Your task to perform on an android device: manage bookmarks in the chrome app Image 0: 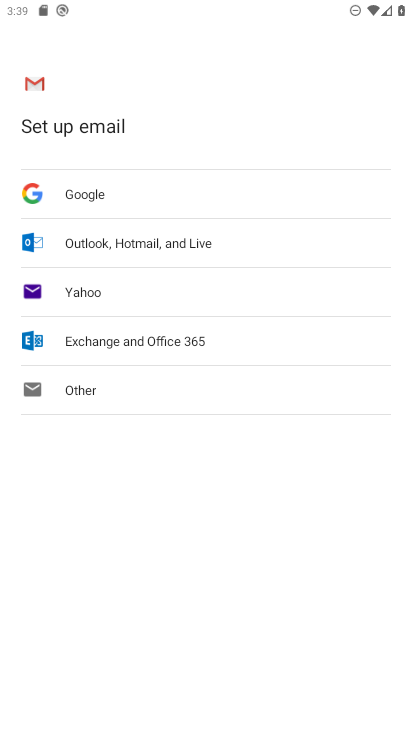
Step 0: press home button
Your task to perform on an android device: manage bookmarks in the chrome app Image 1: 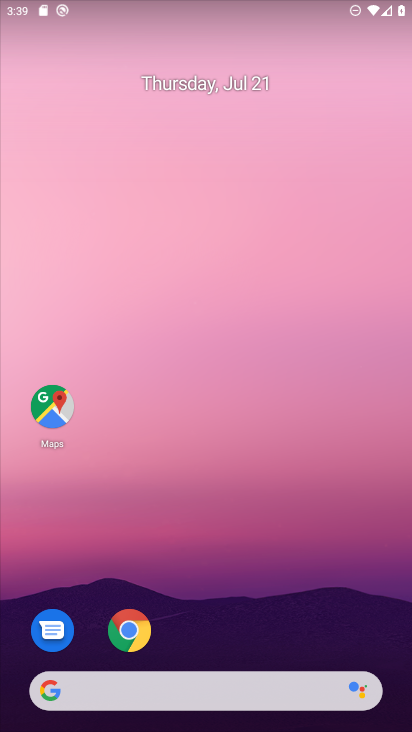
Step 1: drag from (241, 651) to (256, 47)
Your task to perform on an android device: manage bookmarks in the chrome app Image 2: 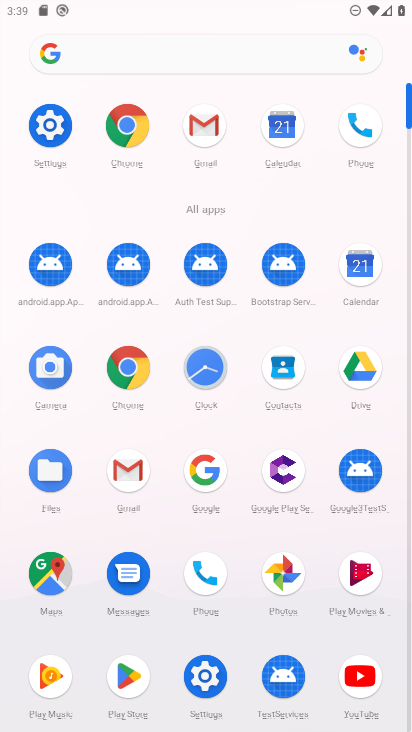
Step 2: click (136, 384)
Your task to perform on an android device: manage bookmarks in the chrome app Image 3: 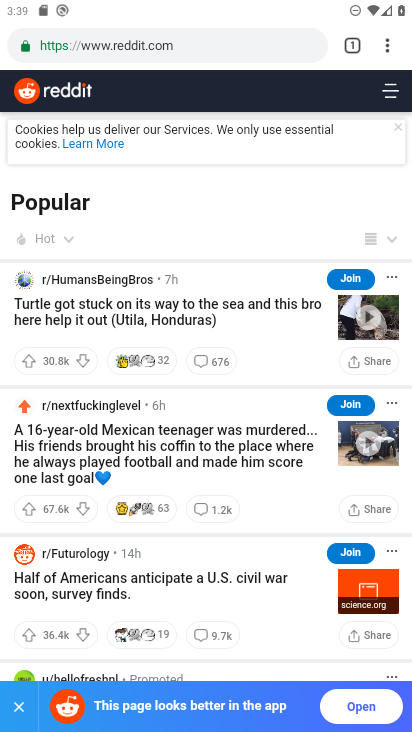
Step 3: click (388, 44)
Your task to perform on an android device: manage bookmarks in the chrome app Image 4: 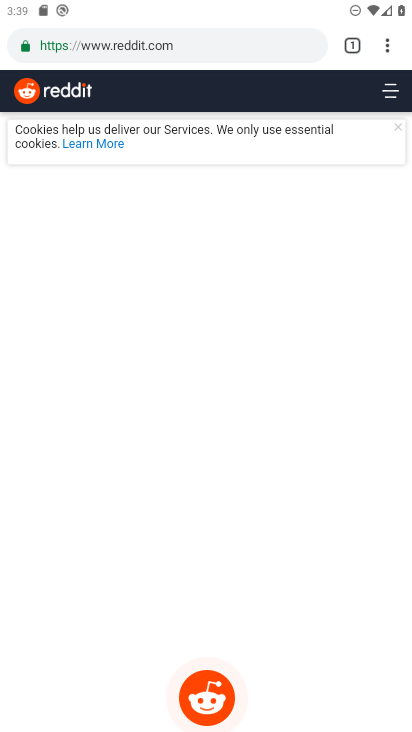
Step 4: click (390, 45)
Your task to perform on an android device: manage bookmarks in the chrome app Image 5: 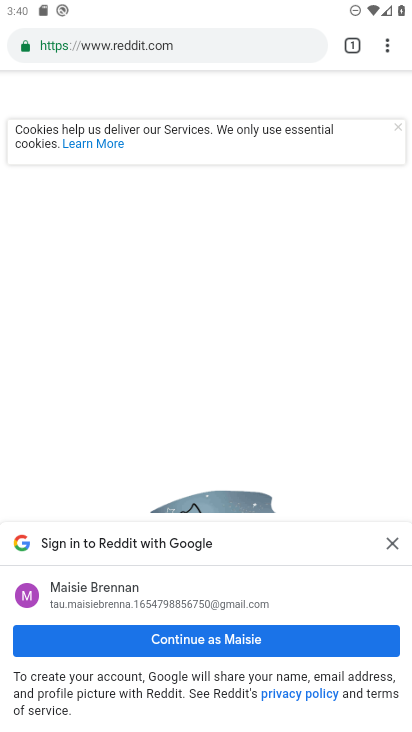
Step 5: click (384, 43)
Your task to perform on an android device: manage bookmarks in the chrome app Image 6: 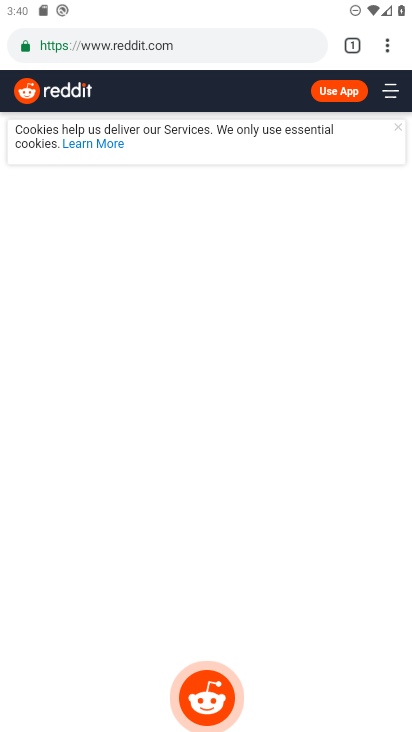
Step 6: task complete